Your task to perform on an android device: install app "Gmail" Image 0: 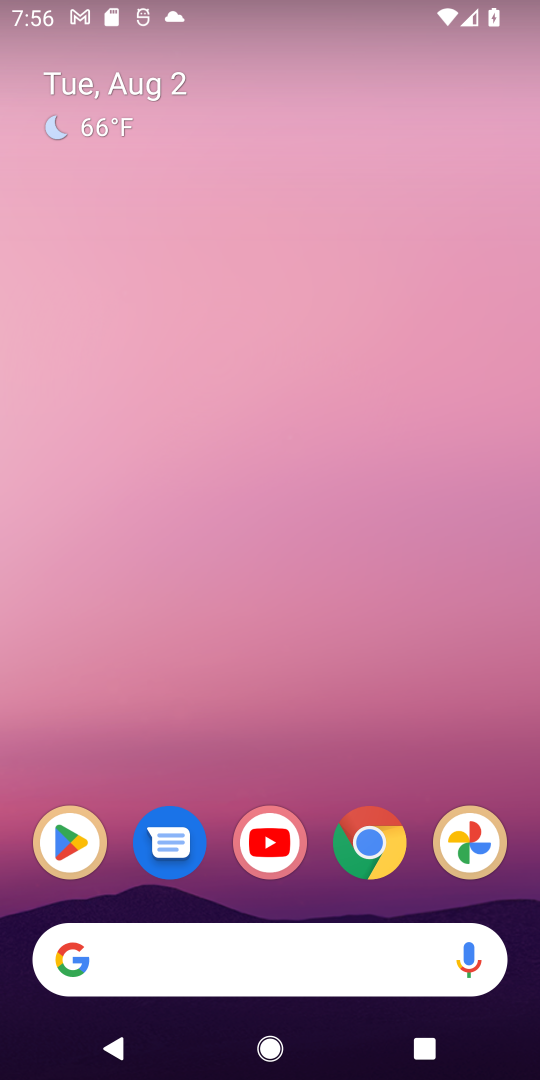
Step 0: drag from (291, 882) to (342, 9)
Your task to perform on an android device: install app "Gmail" Image 1: 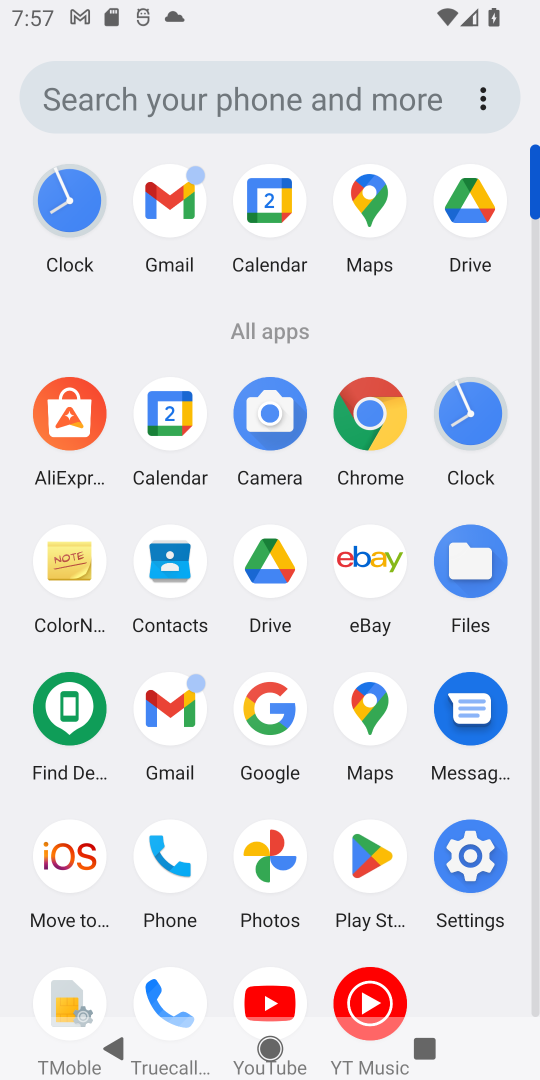
Step 1: click (366, 865)
Your task to perform on an android device: install app "Gmail" Image 2: 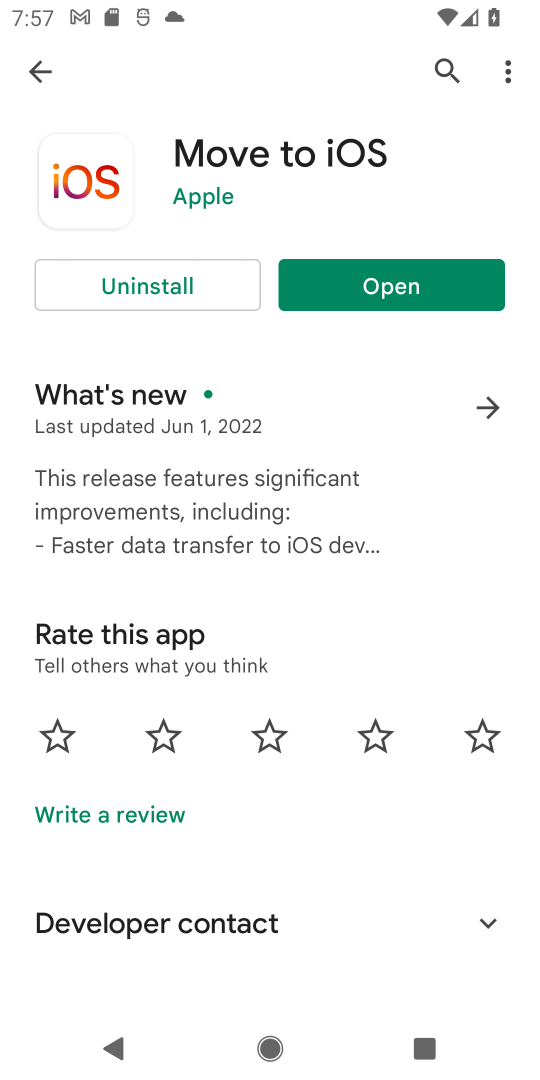
Step 2: click (42, 64)
Your task to perform on an android device: install app "Gmail" Image 3: 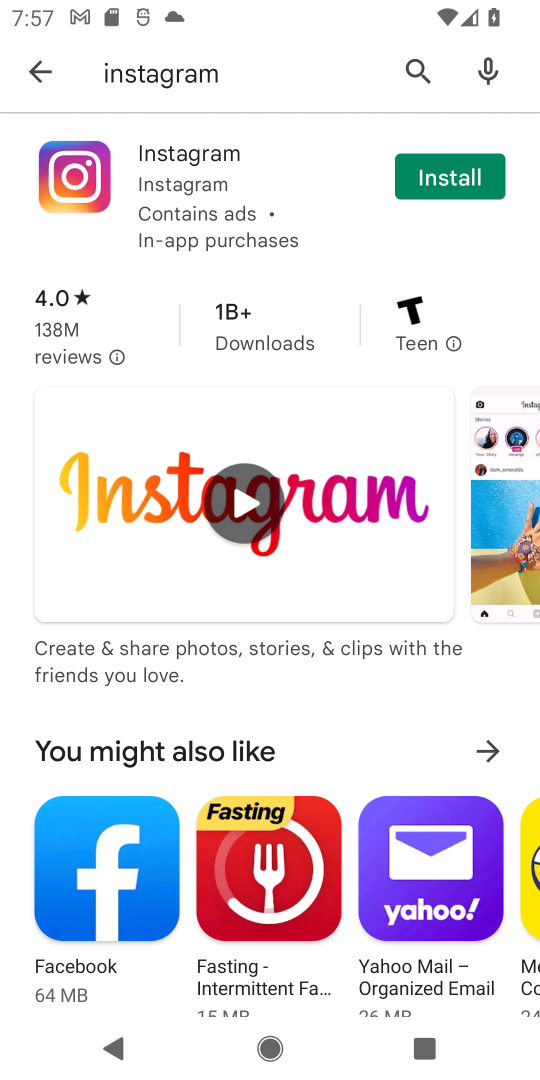
Step 3: click (236, 90)
Your task to perform on an android device: install app "Gmail" Image 4: 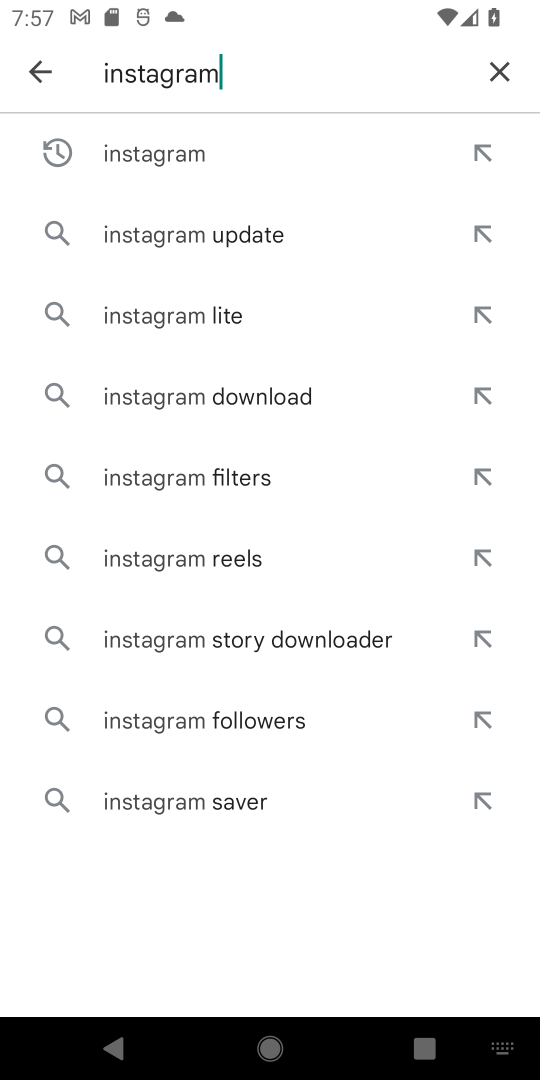
Step 4: click (492, 67)
Your task to perform on an android device: install app "Gmail" Image 5: 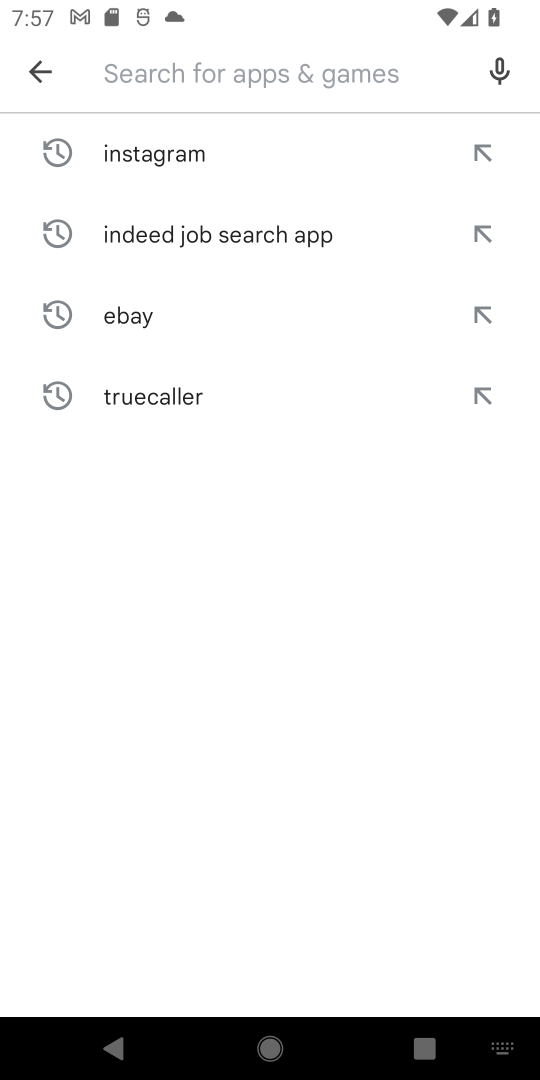
Step 5: type "gmail"
Your task to perform on an android device: install app "Gmail" Image 6: 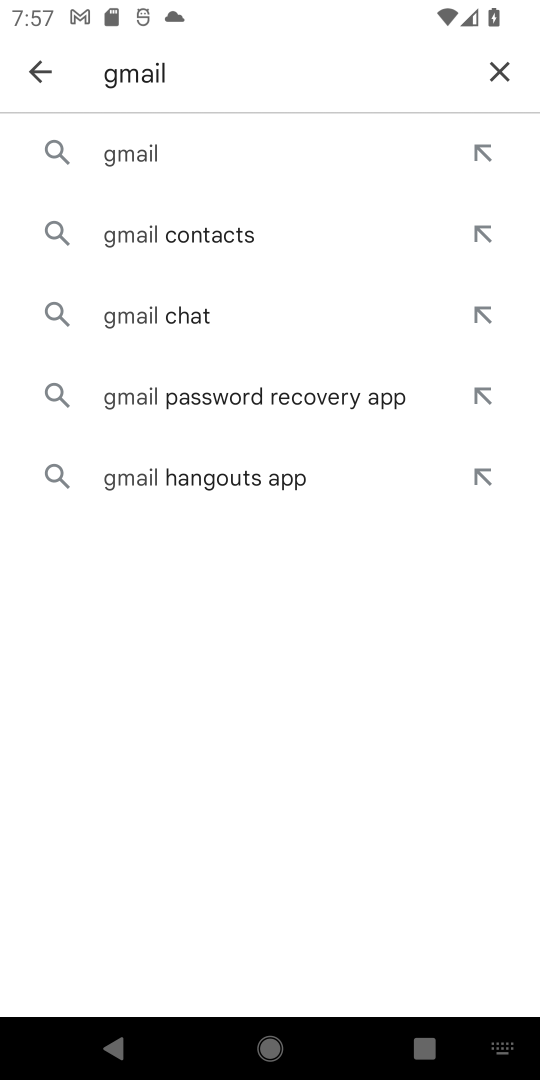
Step 6: click (142, 143)
Your task to perform on an android device: install app "Gmail" Image 7: 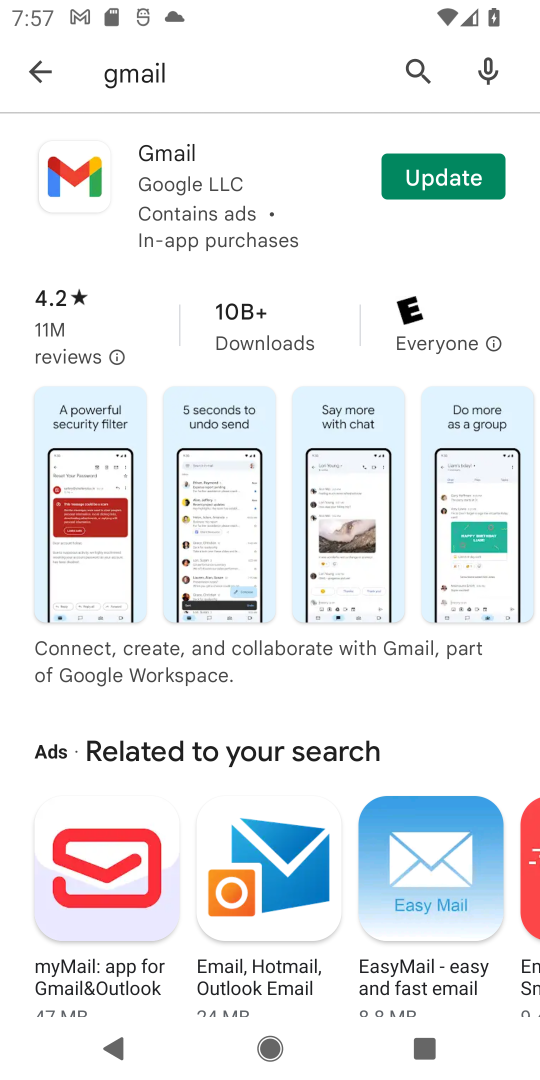
Step 7: click (463, 165)
Your task to perform on an android device: install app "Gmail" Image 8: 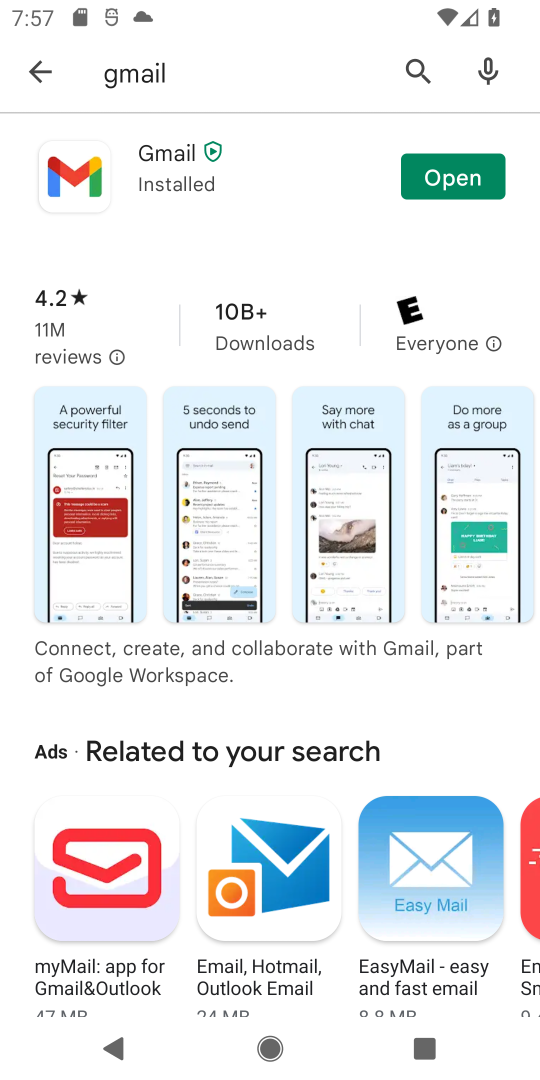
Step 8: click (98, 177)
Your task to perform on an android device: install app "Gmail" Image 9: 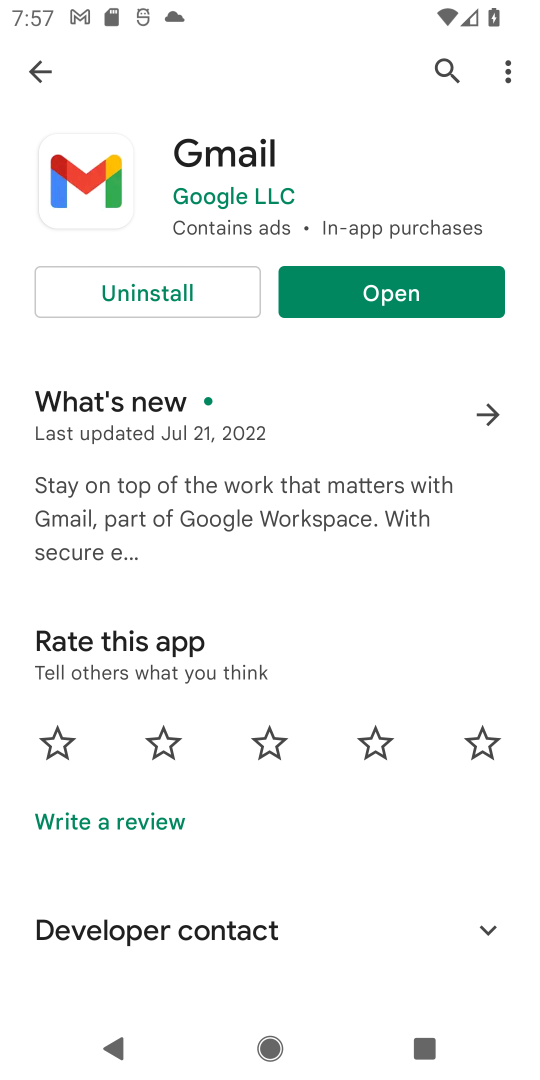
Step 9: task complete